Your task to perform on an android device: Open Google Maps Image 0: 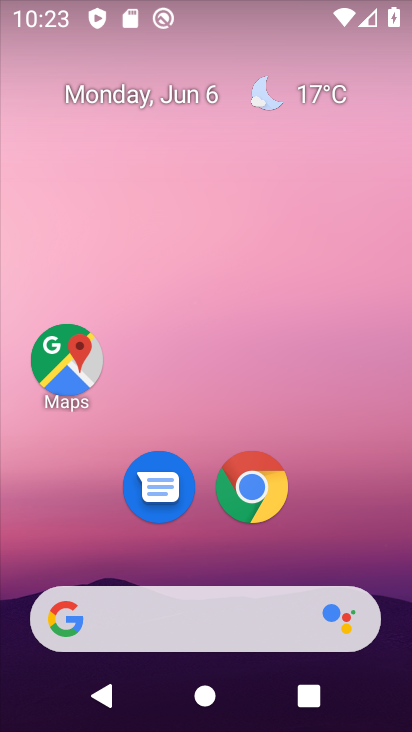
Step 0: click (70, 366)
Your task to perform on an android device: Open Google Maps Image 1: 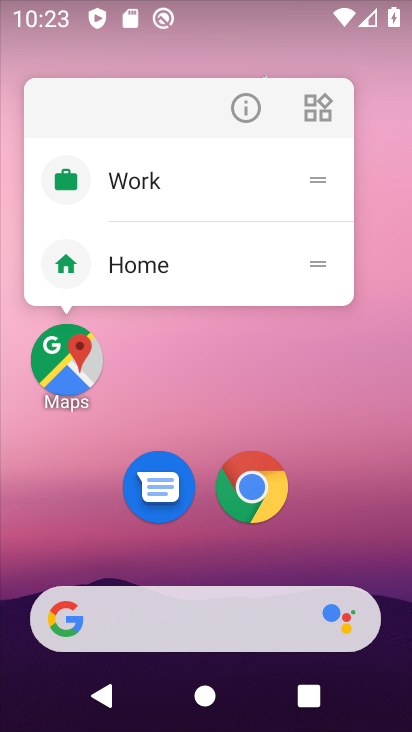
Step 1: click (72, 391)
Your task to perform on an android device: Open Google Maps Image 2: 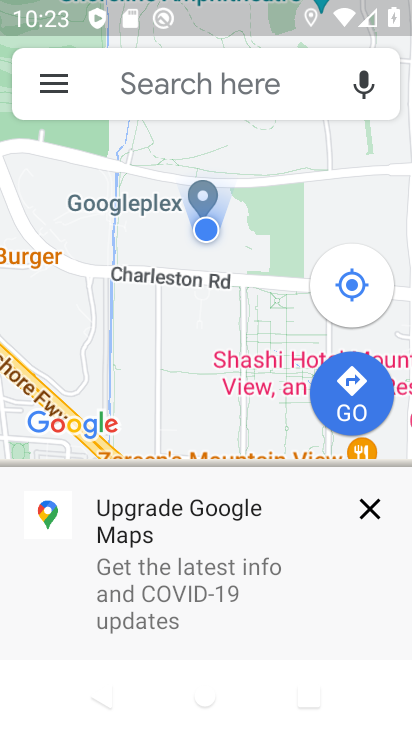
Step 2: click (375, 515)
Your task to perform on an android device: Open Google Maps Image 3: 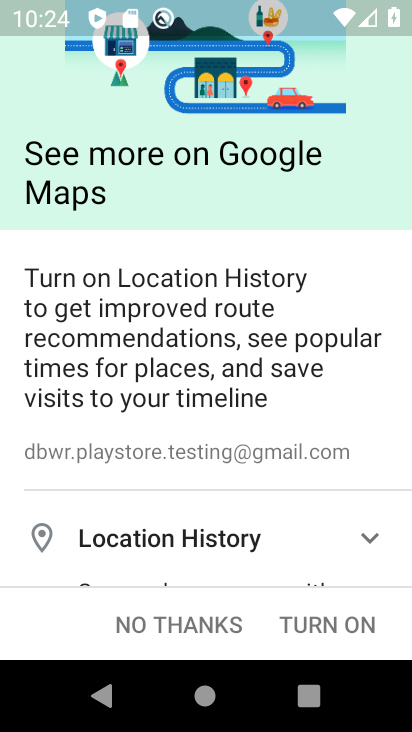
Step 3: click (209, 635)
Your task to perform on an android device: Open Google Maps Image 4: 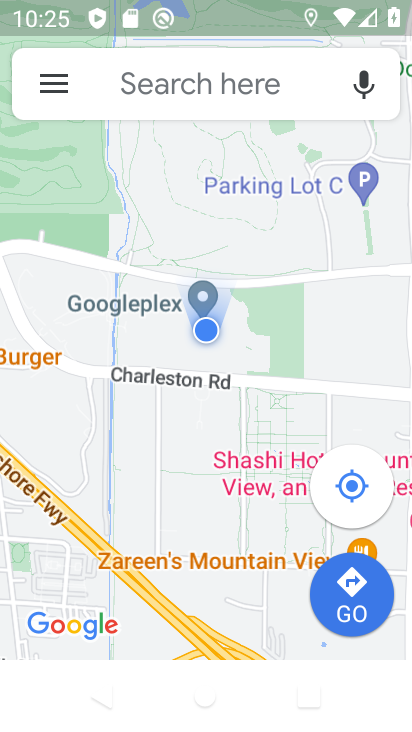
Step 4: task complete